Your task to perform on an android device: Go to display settings Image 0: 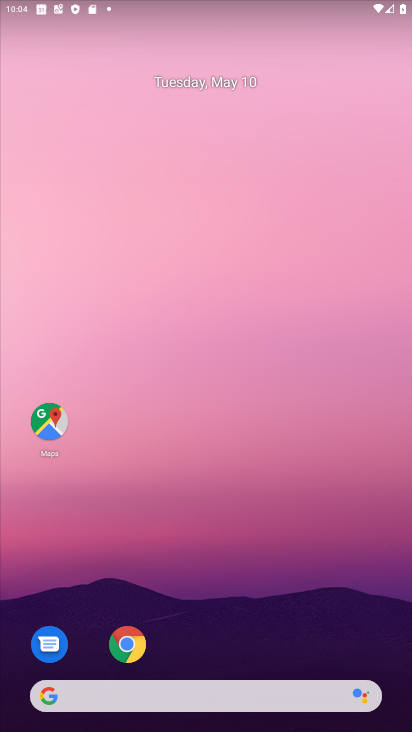
Step 0: drag from (212, 660) to (194, 198)
Your task to perform on an android device: Go to display settings Image 1: 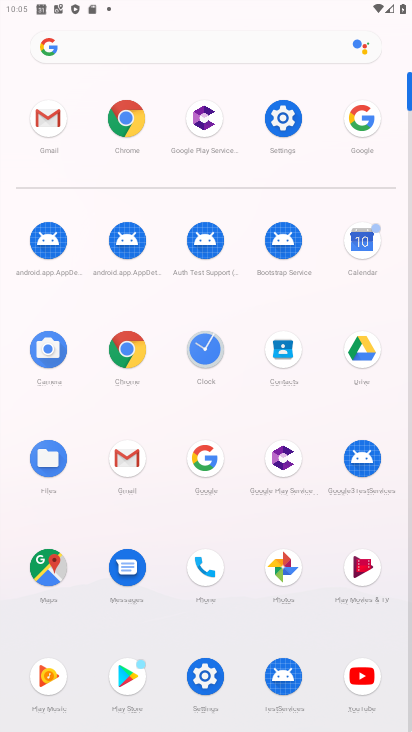
Step 1: click (294, 116)
Your task to perform on an android device: Go to display settings Image 2: 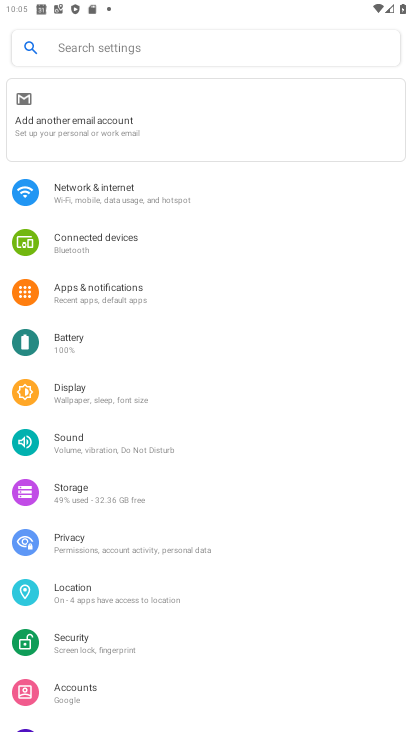
Step 2: click (132, 405)
Your task to perform on an android device: Go to display settings Image 3: 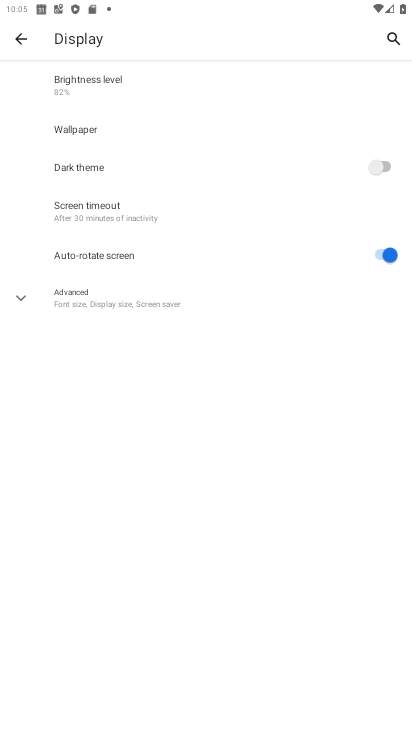
Step 3: click (107, 307)
Your task to perform on an android device: Go to display settings Image 4: 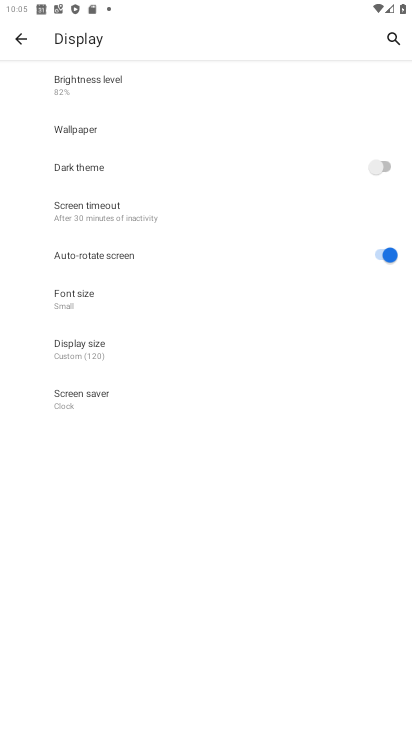
Step 4: task complete